Your task to perform on an android device: turn on improve location accuracy Image 0: 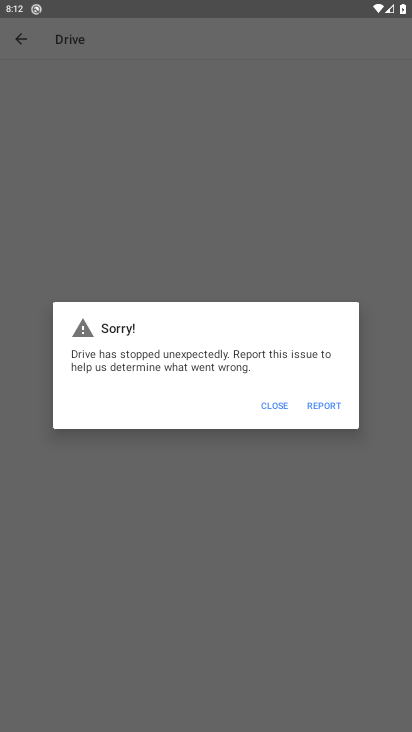
Step 0: press home button
Your task to perform on an android device: turn on improve location accuracy Image 1: 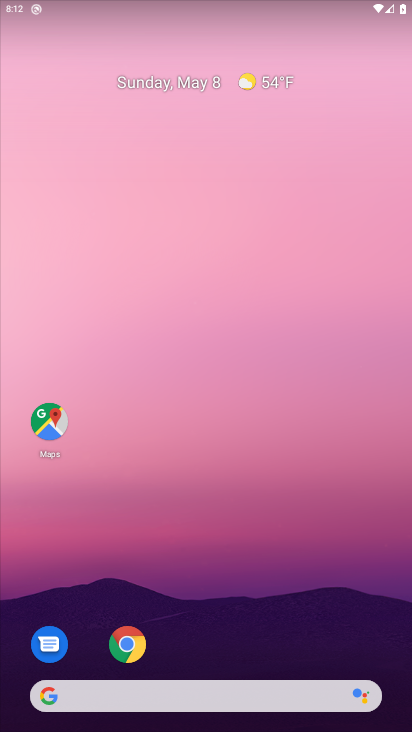
Step 1: drag from (227, 681) to (270, 315)
Your task to perform on an android device: turn on improve location accuracy Image 2: 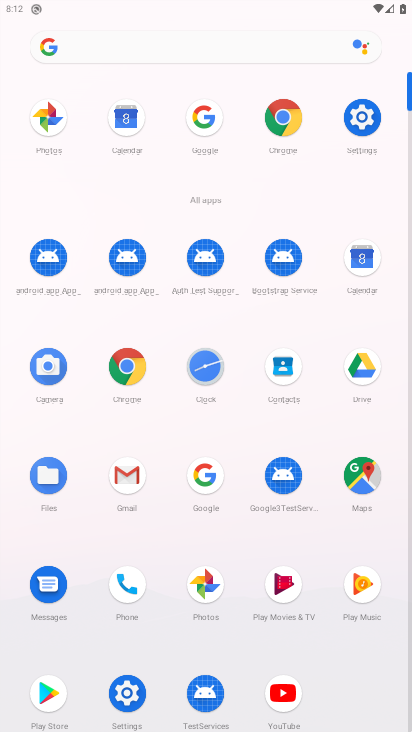
Step 2: click (363, 109)
Your task to perform on an android device: turn on improve location accuracy Image 3: 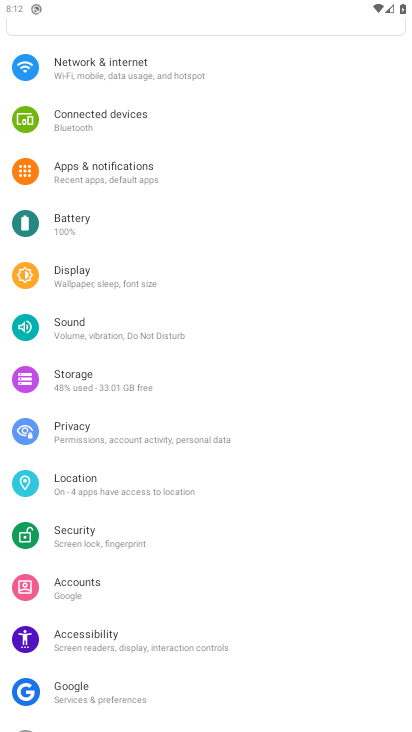
Step 3: click (87, 484)
Your task to perform on an android device: turn on improve location accuracy Image 4: 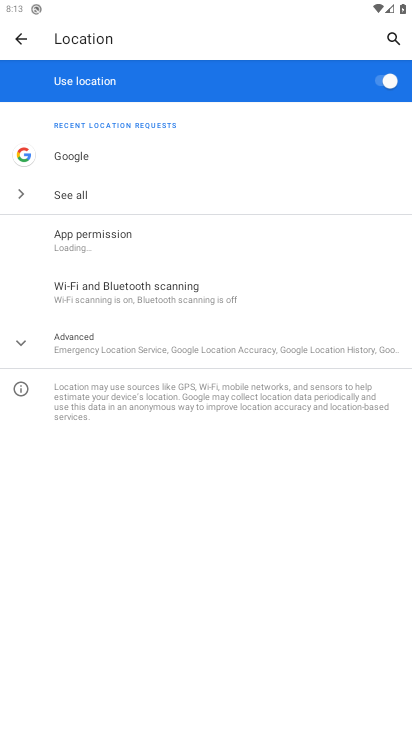
Step 4: click (115, 353)
Your task to perform on an android device: turn on improve location accuracy Image 5: 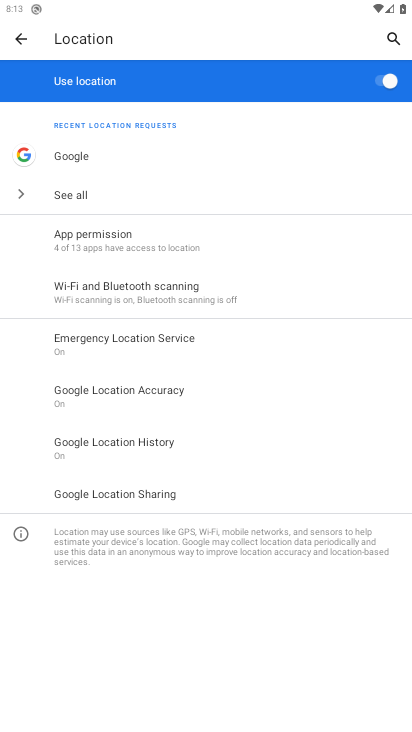
Step 5: click (120, 395)
Your task to perform on an android device: turn on improve location accuracy Image 6: 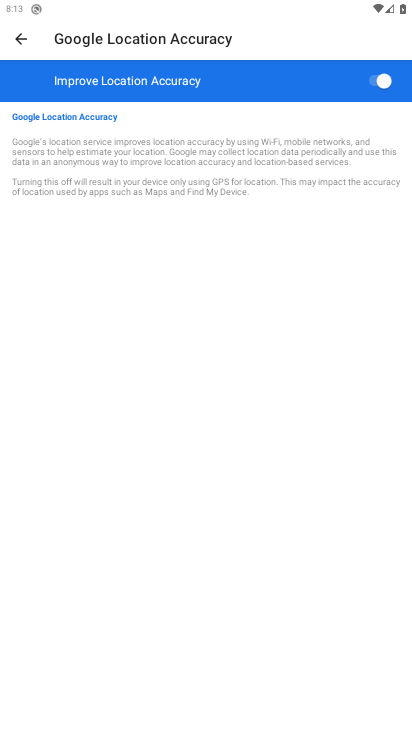
Step 6: task complete